Your task to perform on an android device: Do I have any events today? Image 0: 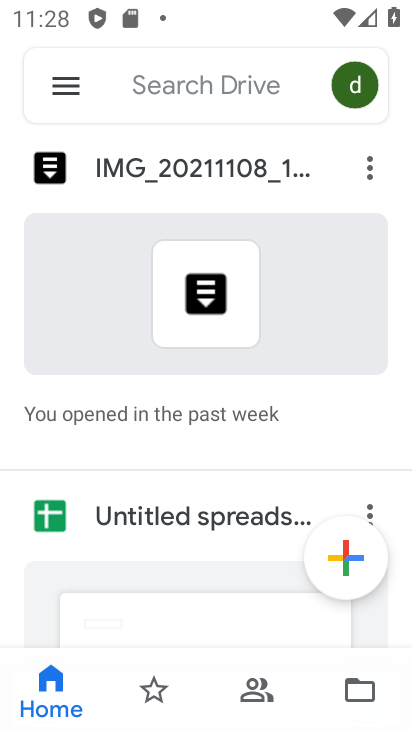
Step 0: press home button
Your task to perform on an android device: Do I have any events today? Image 1: 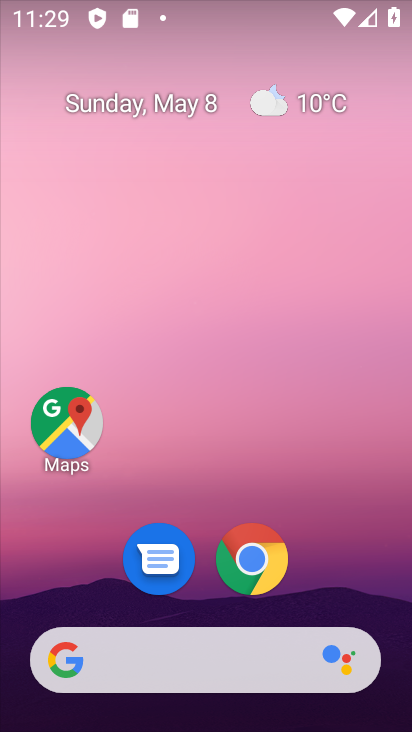
Step 1: drag from (300, 580) to (390, 95)
Your task to perform on an android device: Do I have any events today? Image 2: 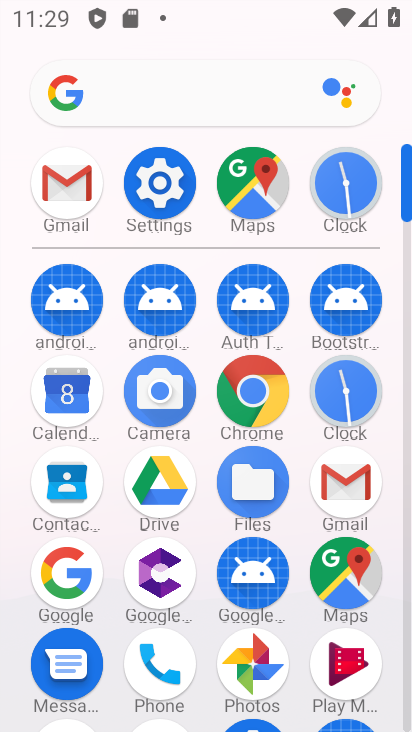
Step 2: click (80, 397)
Your task to perform on an android device: Do I have any events today? Image 3: 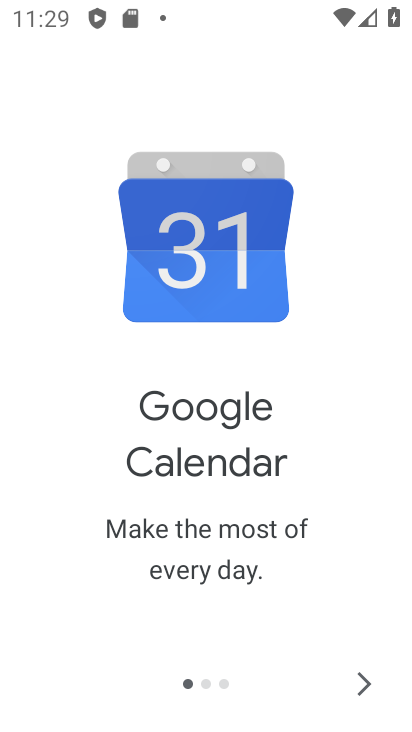
Step 3: click (380, 689)
Your task to perform on an android device: Do I have any events today? Image 4: 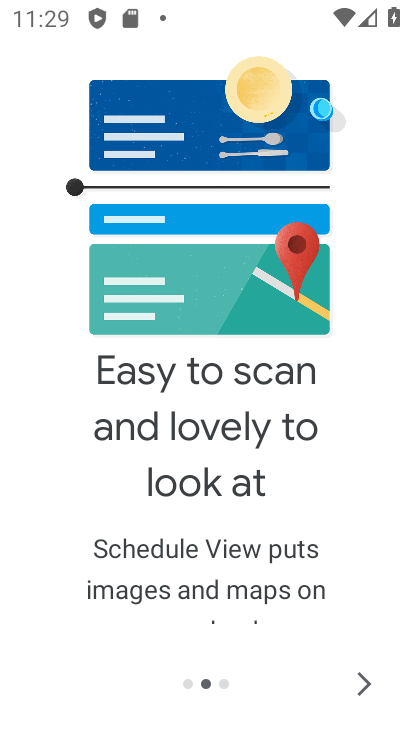
Step 4: click (374, 684)
Your task to perform on an android device: Do I have any events today? Image 5: 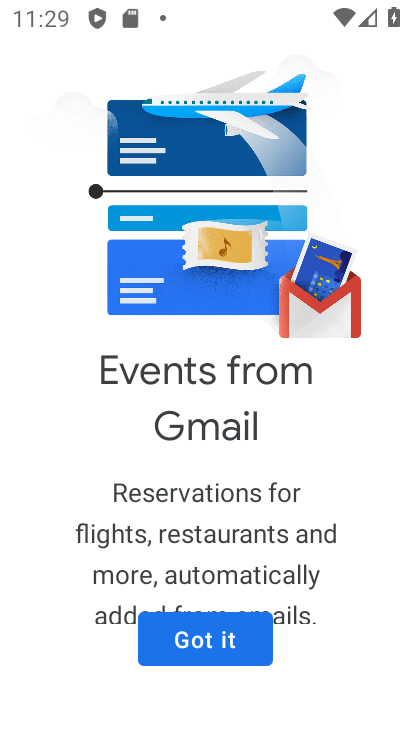
Step 5: click (254, 629)
Your task to perform on an android device: Do I have any events today? Image 6: 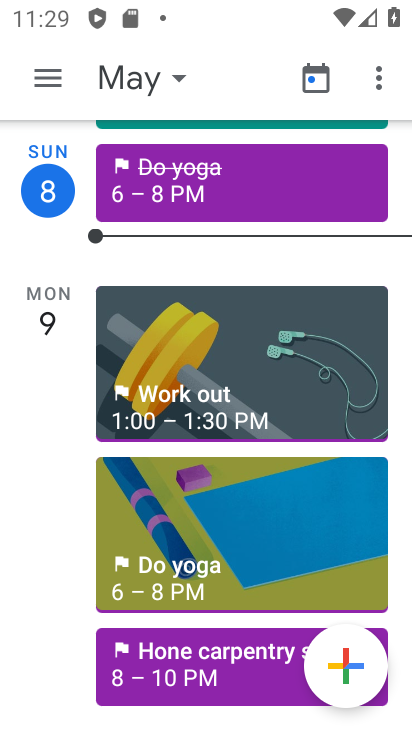
Step 6: click (56, 85)
Your task to perform on an android device: Do I have any events today? Image 7: 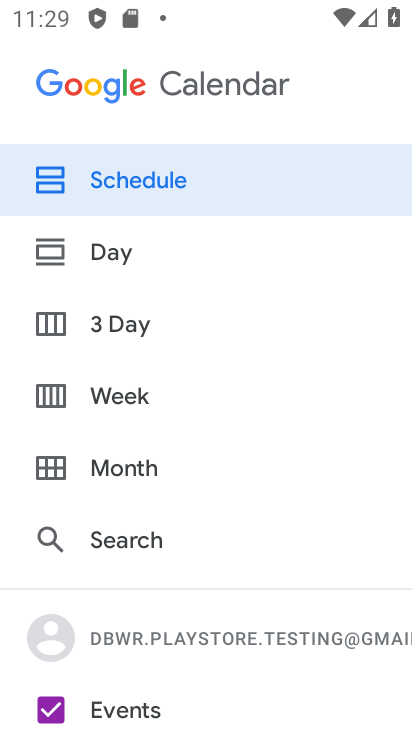
Step 7: click (159, 322)
Your task to perform on an android device: Do I have any events today? Image 8: 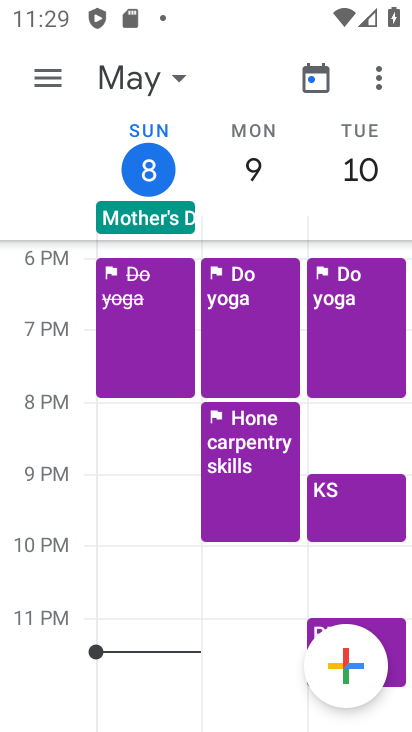
Step 8: task complete